Your task to perform on an android device: What's on my calendar today? Image 0: 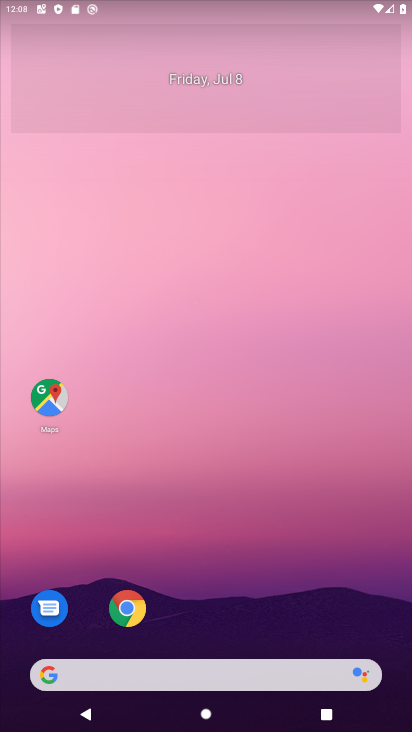
Step 0: drag from (51, 697) to (313, 19)
Your task to perform on an android device: What's on my calendar today? Image 1: 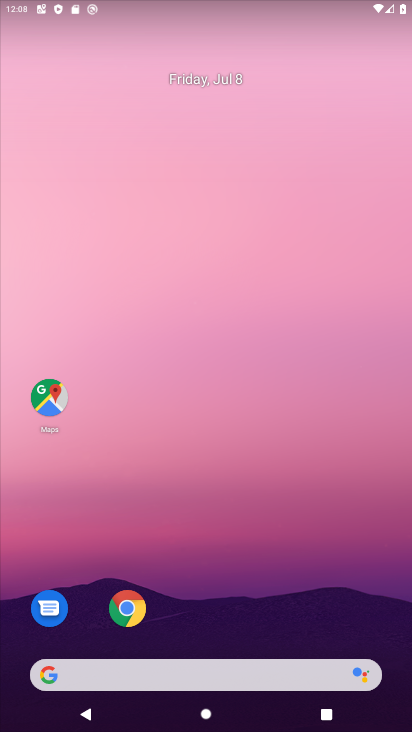
Step 1: drag from (24, 705) to (171, 5)
Your task to perform on an android device: What's on my calendar today? Image 2: 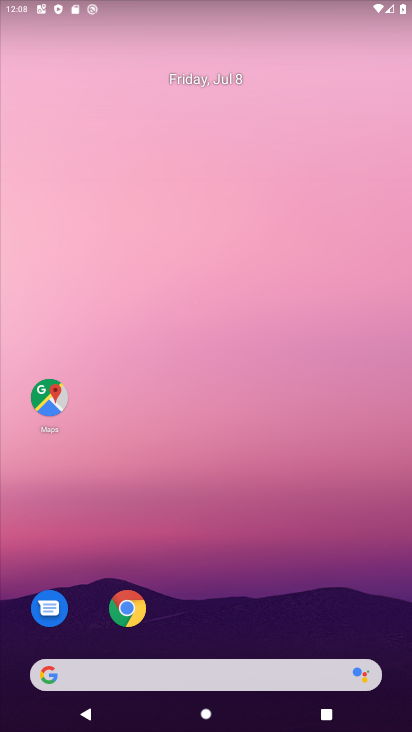
Step 2: drag from (35, 632) to (256, 34)
Your task to perform on an android device: What's on my calendar today? Image 3: 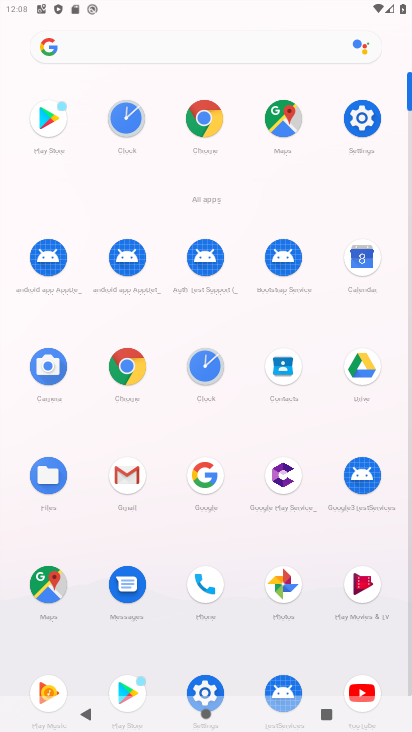
Step 3: click (355, 255)
Your task to perform on an android device: What's on my calendar today? Image 4: 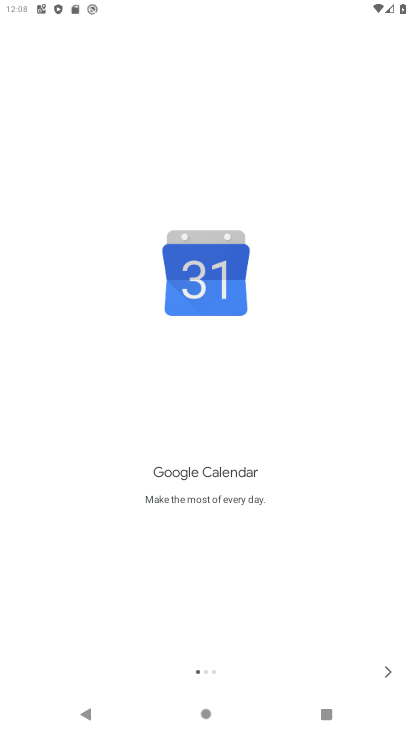
Step 4: click (385, 664)
Your task to perform on an android device: What's on my calendar today? Image 5: 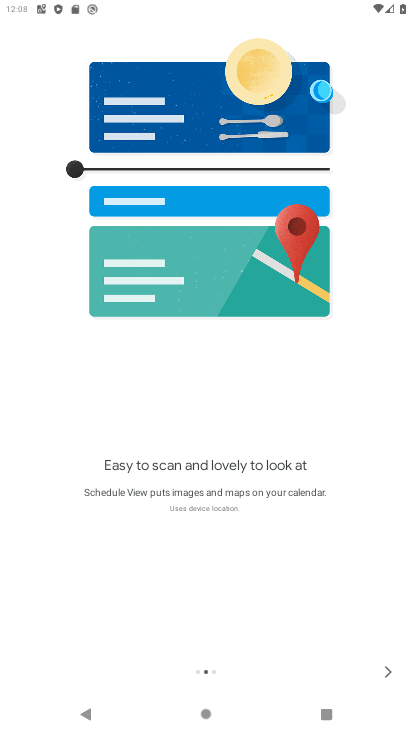
Step 5: click (381, 667)
Your task to perform on an android device: What's on my calendar today? Image 6: 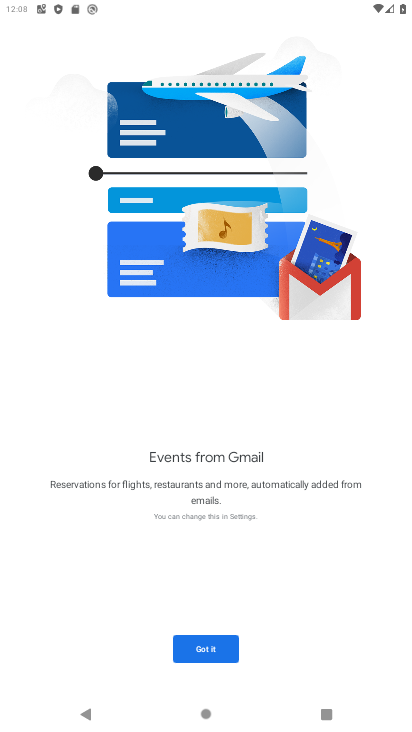
Step 6: click (219, 644)
Your task to perform on an android device: What's on my calendar today? Image 7: 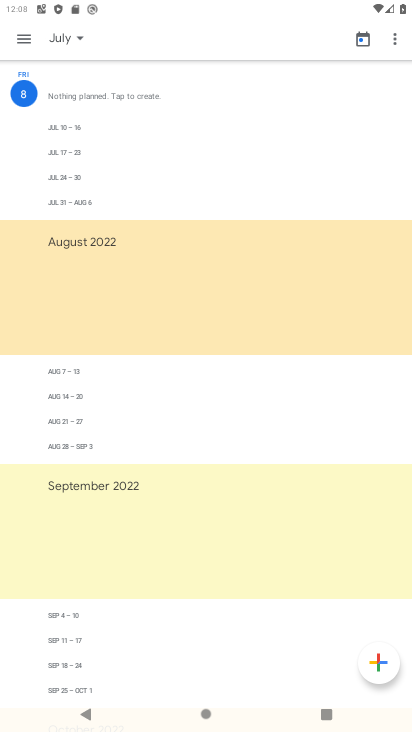
Step 7: click (68, 41)
Your task to perform on an android device: What's on my calendar today? Image 8: 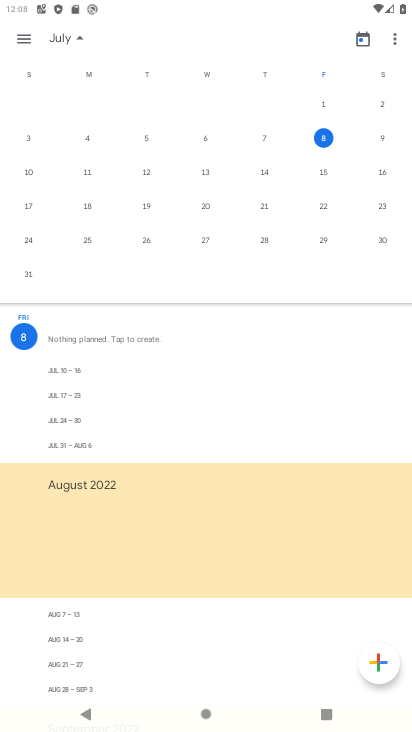
Step 8: task complete